Your task to perform on an android device: find snoozed emails in the gmail app Image 0: 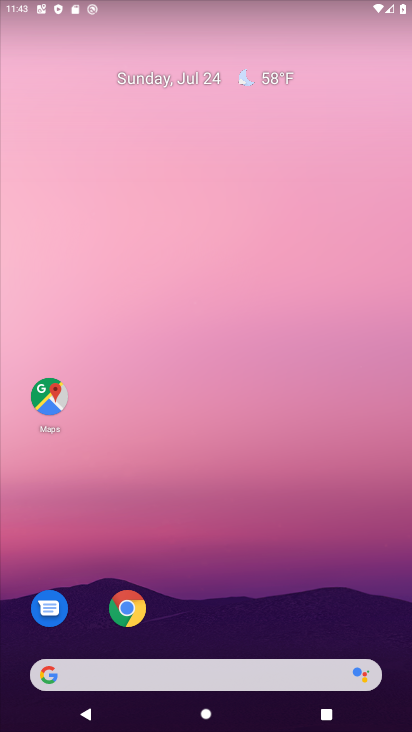
Step 0: drag from (193, 670) to (145, 260)
Your task to perform on an android device: find snoozed emails in the gmail app Image 1: 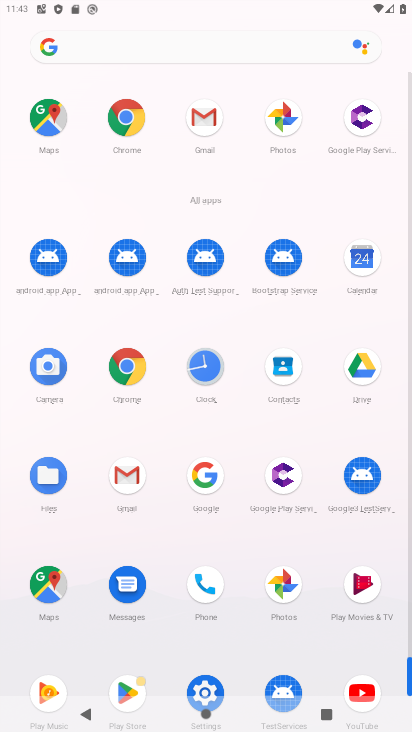
Step 1: click (148, 477)
Your task to perform on an android device: find snoozed emails in the gmail app Image 2: 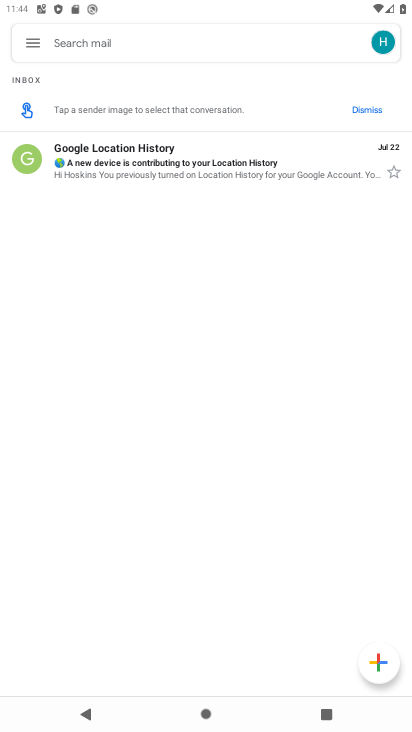
Step 2: click (29, 39)
Your task to perform on an android device: find snoozed emails in the gmail app Image 3: 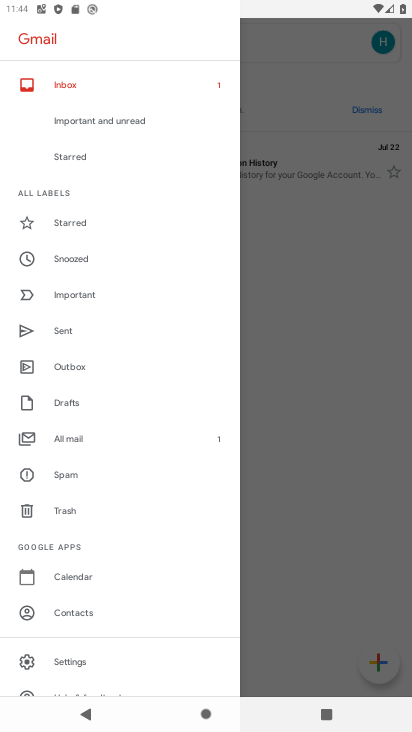
Step 3: click (81, 257)
Your task to perform on an android device: find snoozed emails in the gmail app Image 4: 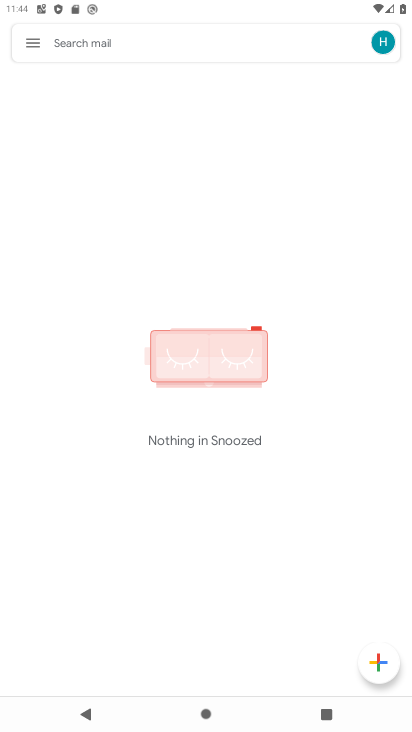
Step 4: task complete